Your task to perform on an android device: Turn off the flashlight Image 0: 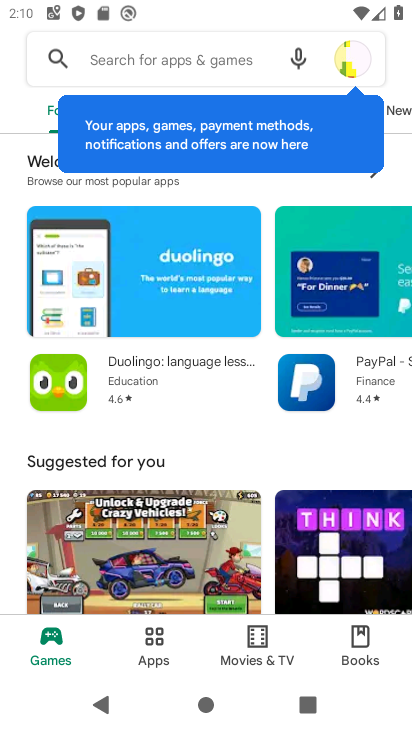
Step 0: press home button
Your task to perform on an android device: Turn off the flashlight Image 1: 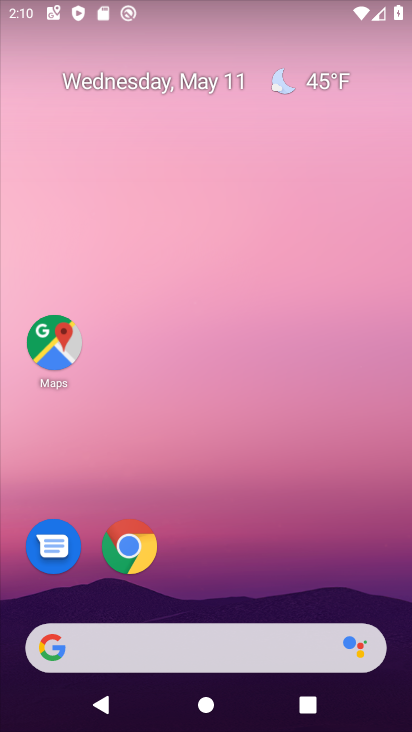
Step 1: drag from (204, 597) to (292, 8)
Your task to perform on an android device: Turn off the flashlight Image 2: 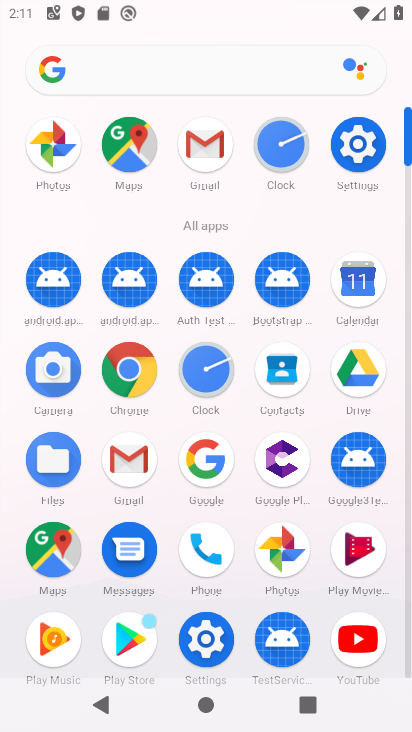
Step 2: click (199, 639)
Your task to perform on an android device: Turn off the flashlight Image 3: 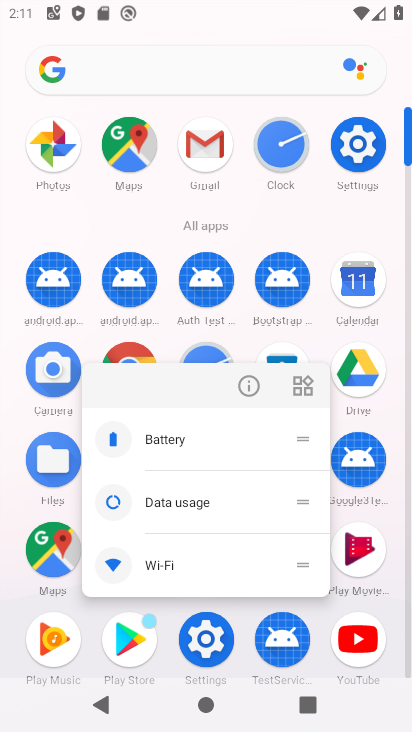
Step 3: click (203, 636)
Your task to perform on an android device: Turn off the flashlight Image 4: 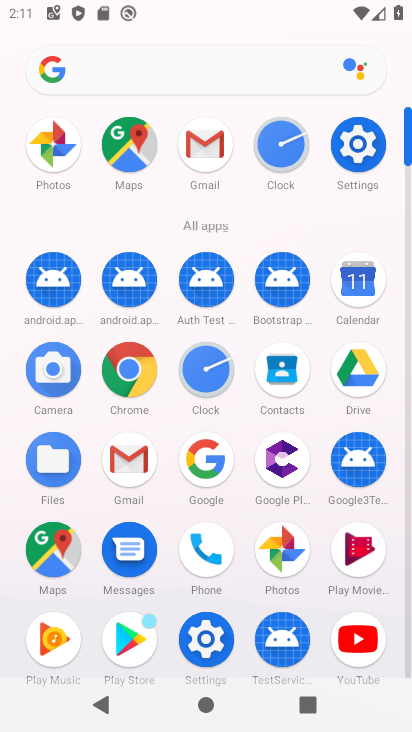
Step 4: click (220, 635)
Your task to perform on an android device: Turn off the flashlight Image 5: 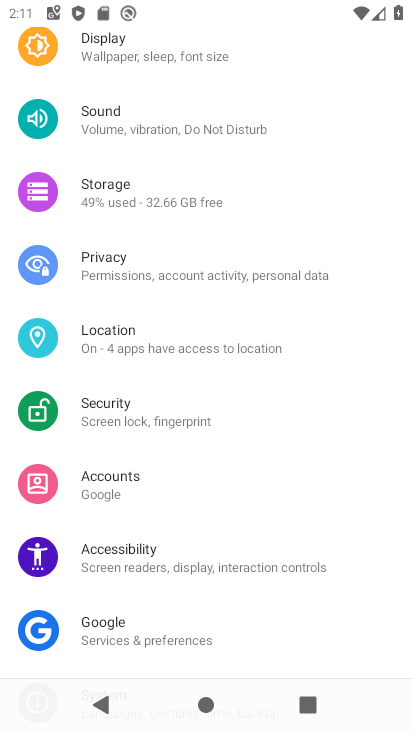
Step 5: drag from (220, 145) to (221, 632)
Your task to perform on an android device: Turn off the flashlight Image 6: 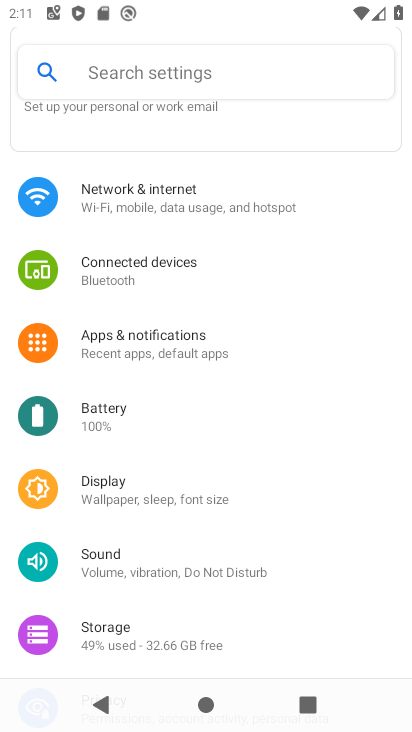
Step 6: click (195, 54)
Your task to perform on an android device: Turn off the flashlight Image 7: 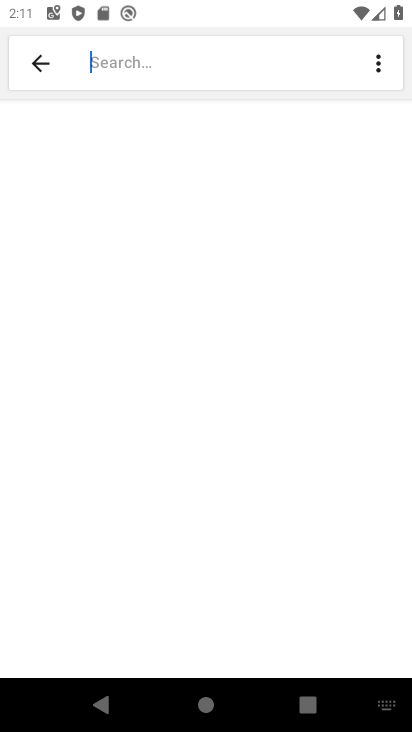
Step 7: type "flashlight"
Your task to perform on an android device: Turn off the flashlight Image 8: 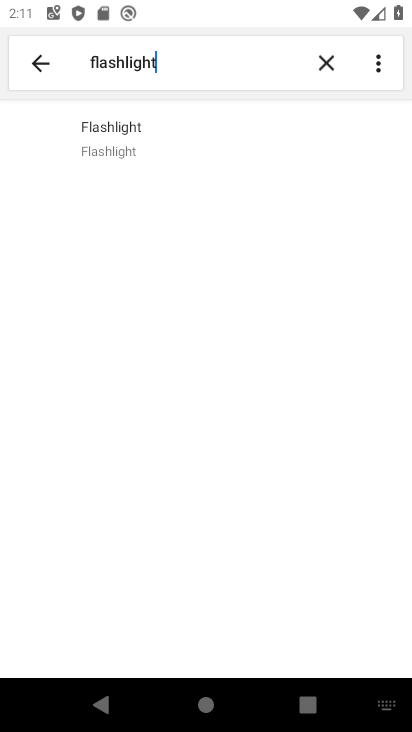
Step 8: click (136, 142)
Your task to perform on an android device: Turn off the flashlight Image 9: 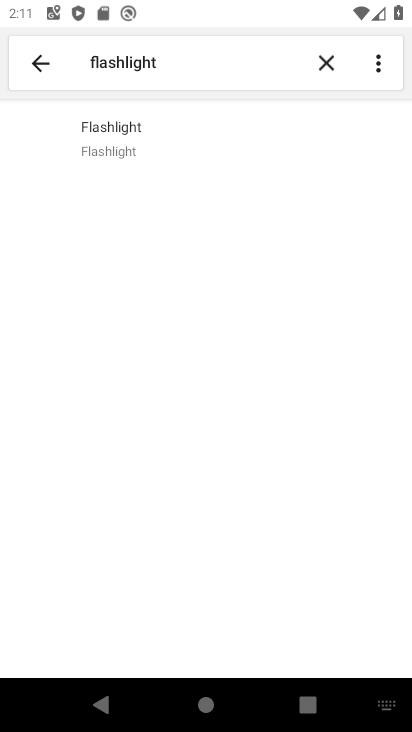
Step 9: click (135, 143)
Your task to perform on an android device: Turn off the flashlight Image 10: 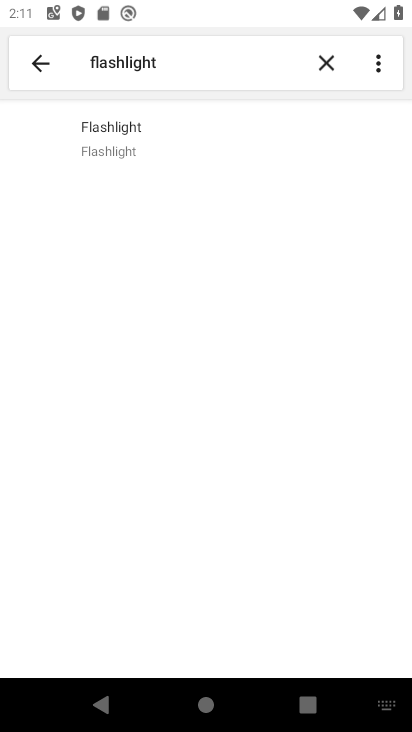
Step 10: click (134, 144)
Your task to perform on an android device: Turn off the flashlight Image 11: 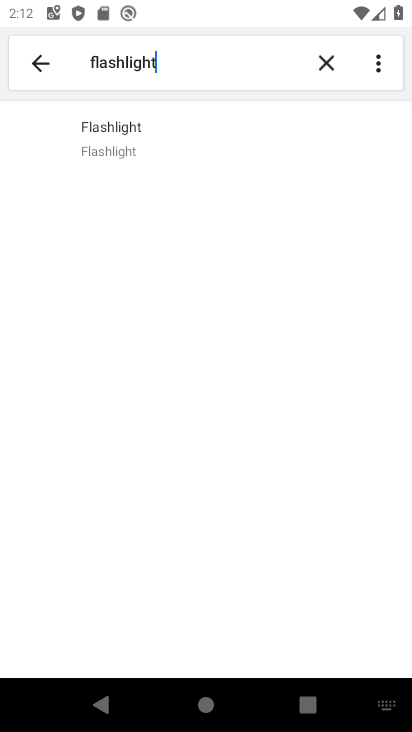
Step 11: task complete